Your task to perform on an android device: Open CNN.com Image 0: 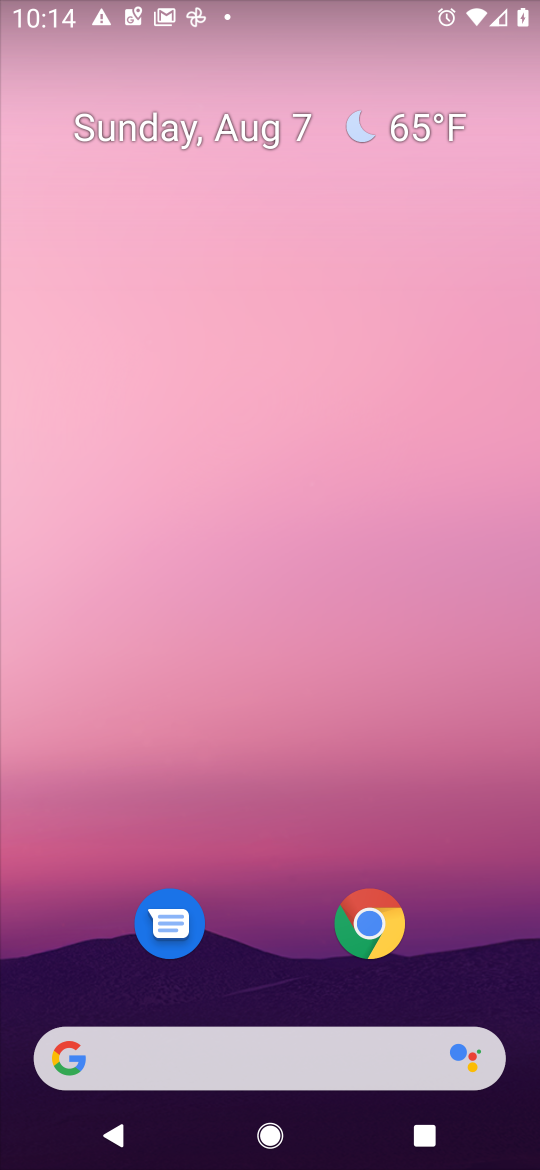
Step 0: drag from (477, 999) to (325, 0)
Your task to perform on an android device: Open CNN.com Image 1: 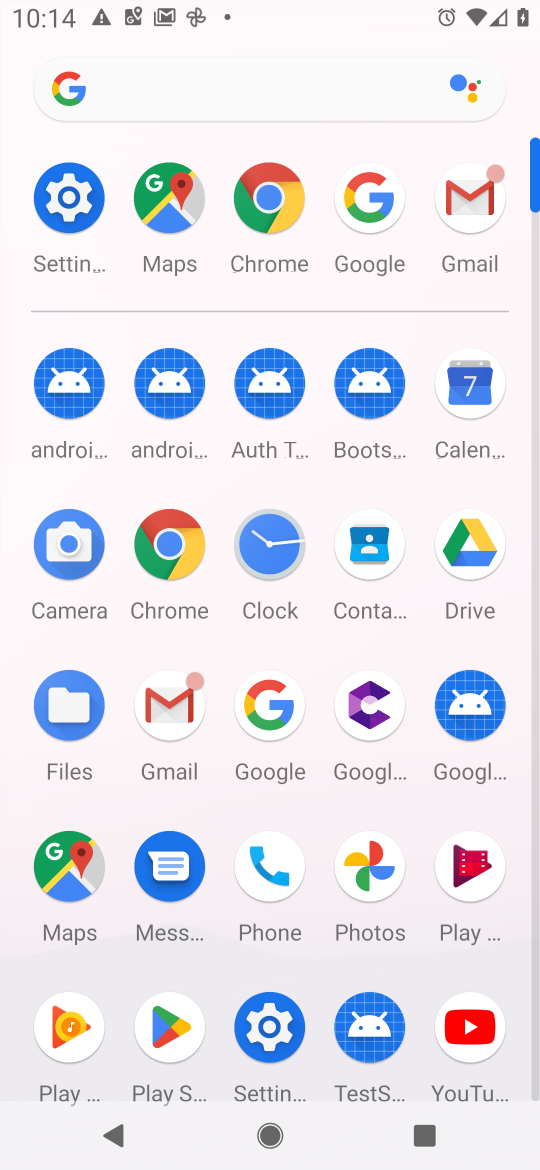
Step 1: click (267, 730)
Your task to perform on an android device: Open CNN.com Image 2: 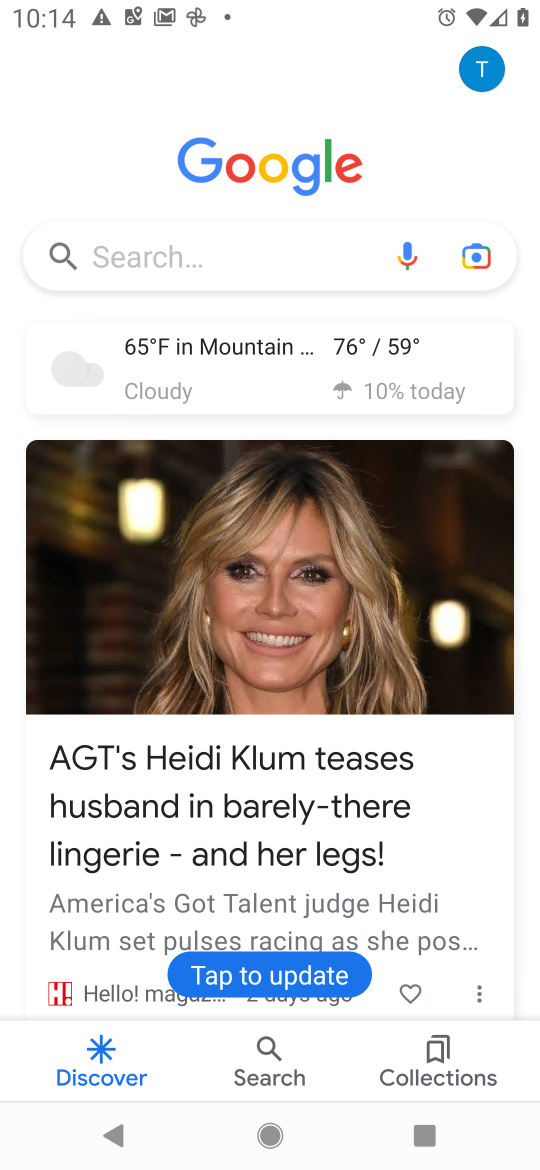
Step 2: click (152, 251)
Your task to perform on an android device: Open CNN.com Image 3: 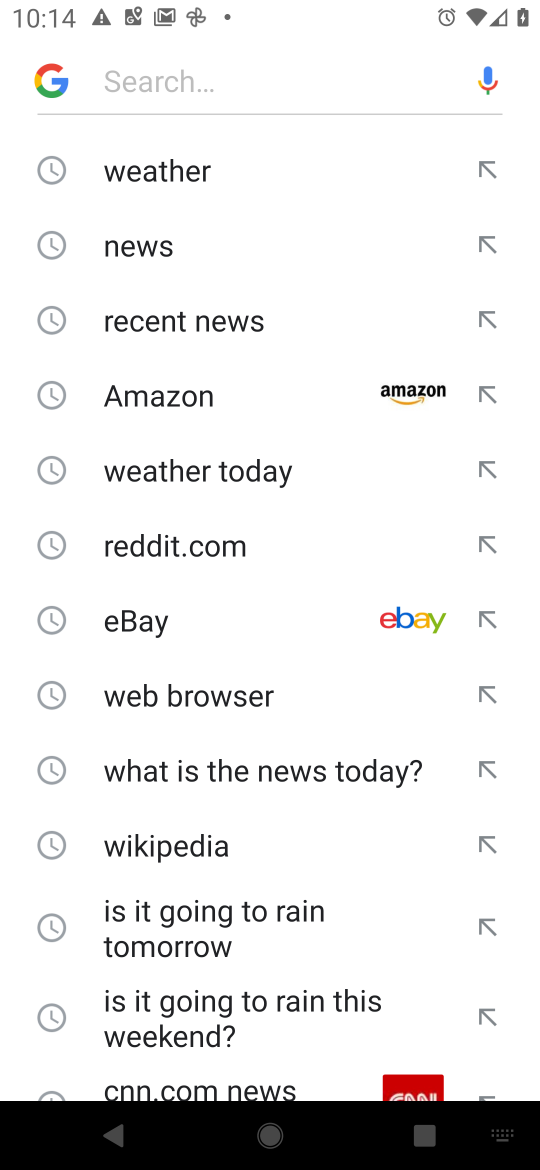
Step 3: type " CNN.com"
Your task to perform on an android device: Open CNN.com Image 4: 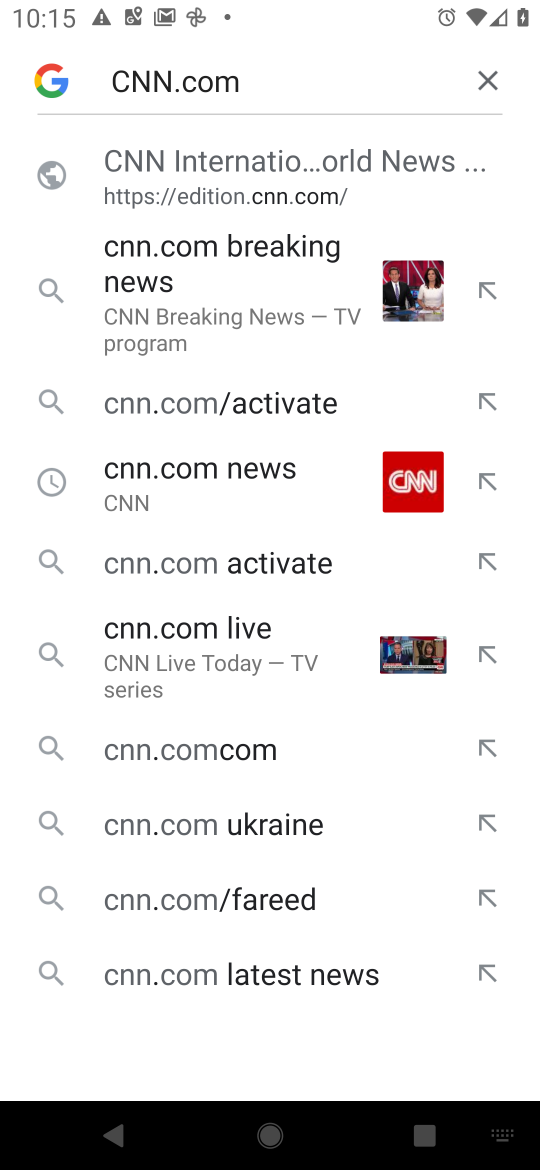
Step 4: click (216, 173)
Your task to perform on an android device: Open CNN.com Image 5: 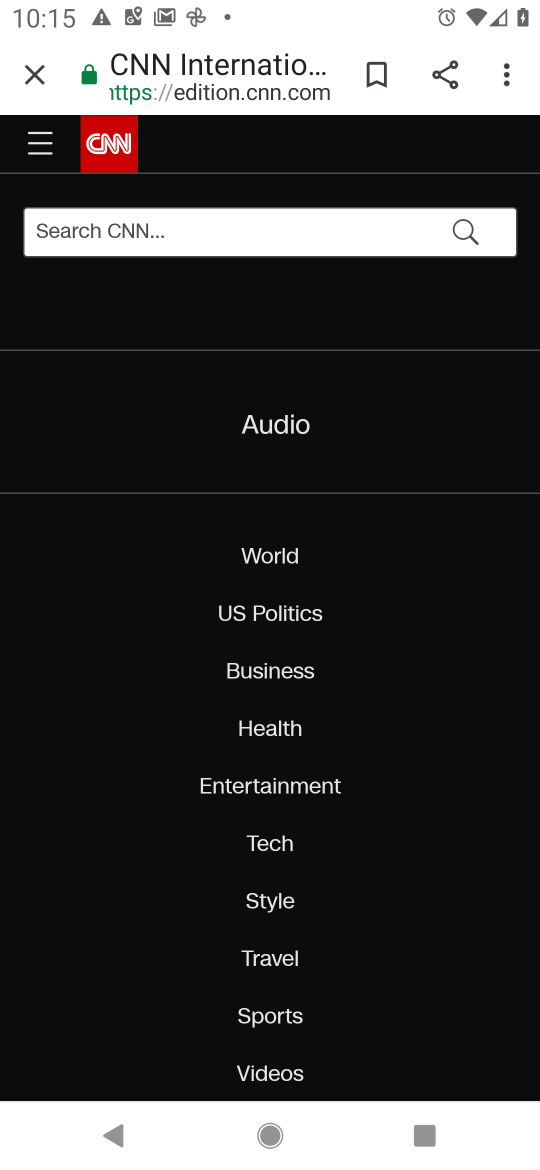
Step 5: task complete